Your task to perform on an android device: Open location settings Image 0: 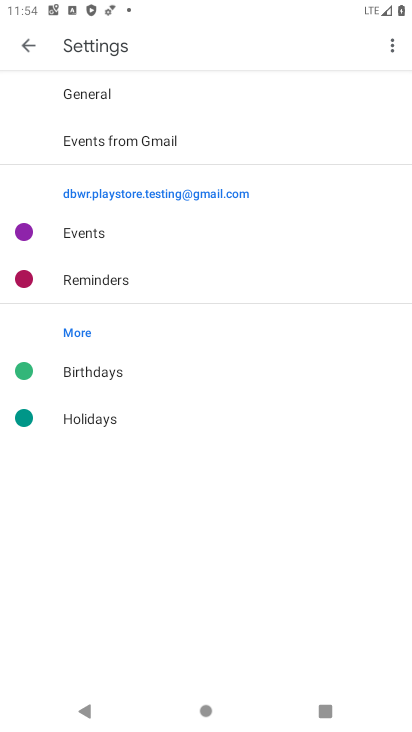
Step 0: press home button
Your task to perform on an android device: Open location settings Image 1: 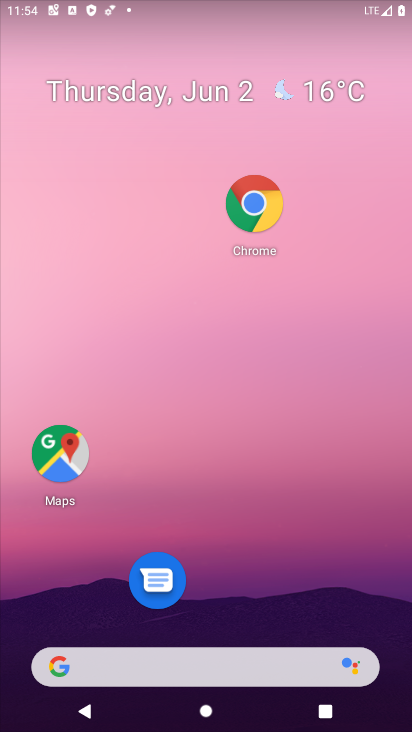
Step 1: drag from (216, 511) to (265, 233)
Your task to perform on an android device: Open location settings Image 2: 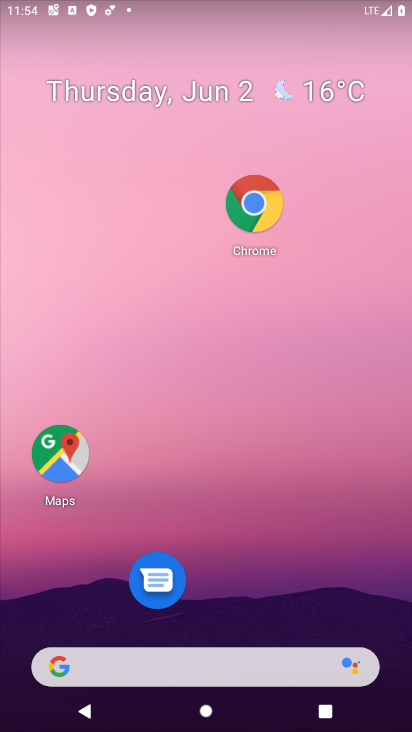
Step 2: drag from (311, 450) to (359, 144)
Your task to perform on an android device: Open location settings Image 3: 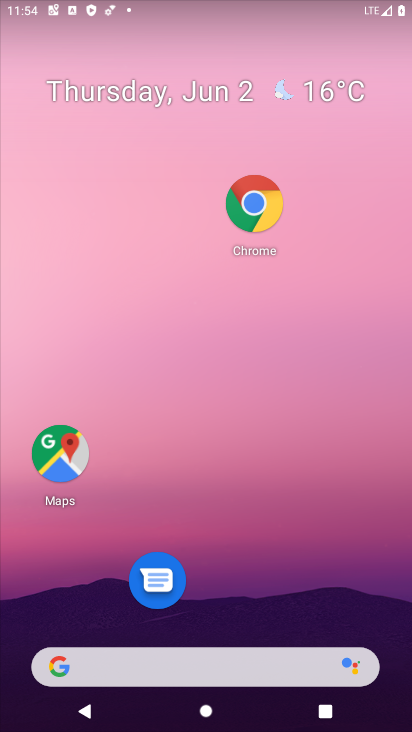
Step 3: drag from (206, 633) to (291, 137)
Your task to perform on an android device: Open location settings Image 4: 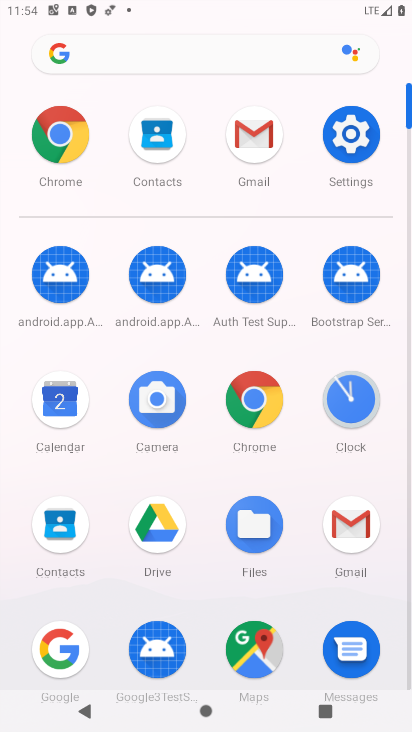
Step 4: click (379, 158)
Your task to perform on an android device: Open location settings Image 5: 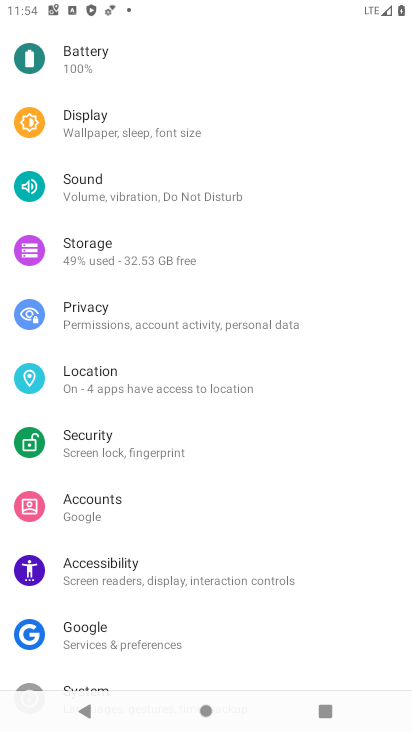
Step 5: click (113, 381)
Your task to perform on an android device: Open location settings Image 6: 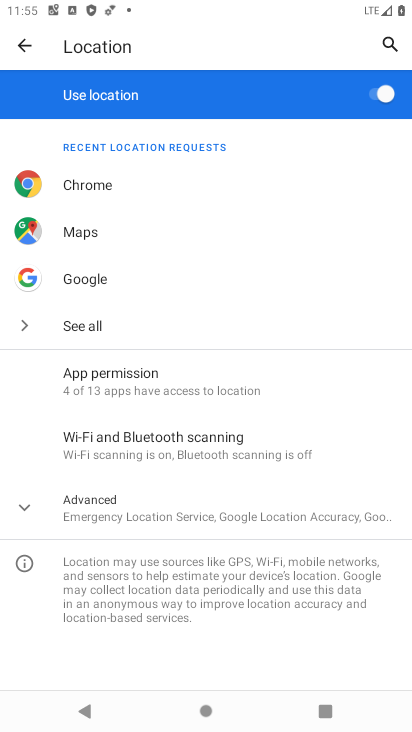
Step 6: task complete